Your task to perform on an android device: Go to accessibility settings Image 0: 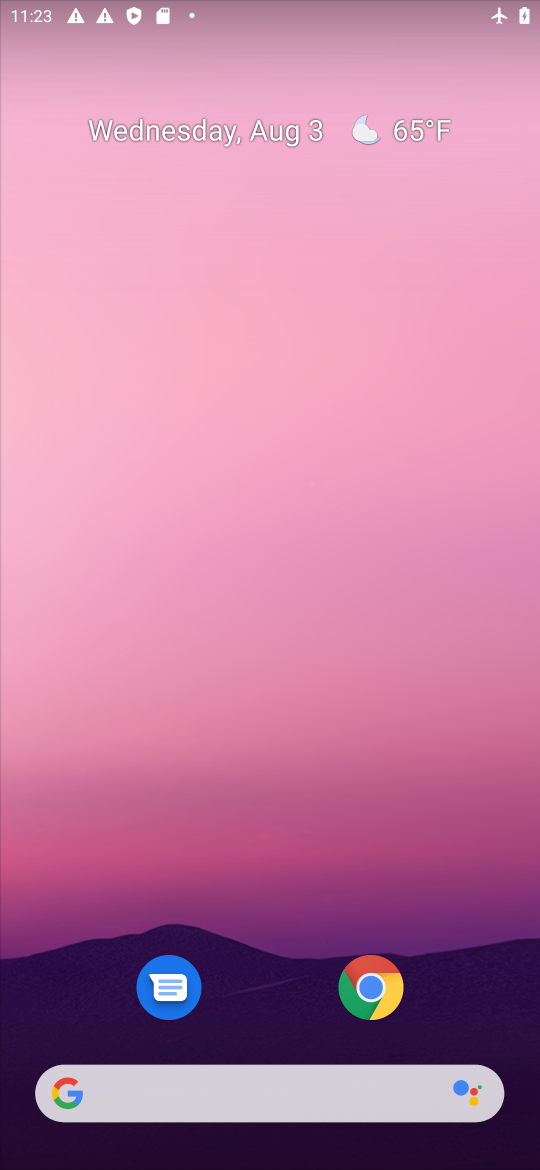
Step 0: drag from (241, 1025) to (238, 463)
Your task to perform on an android device: Go to accessibility settings Image 1: 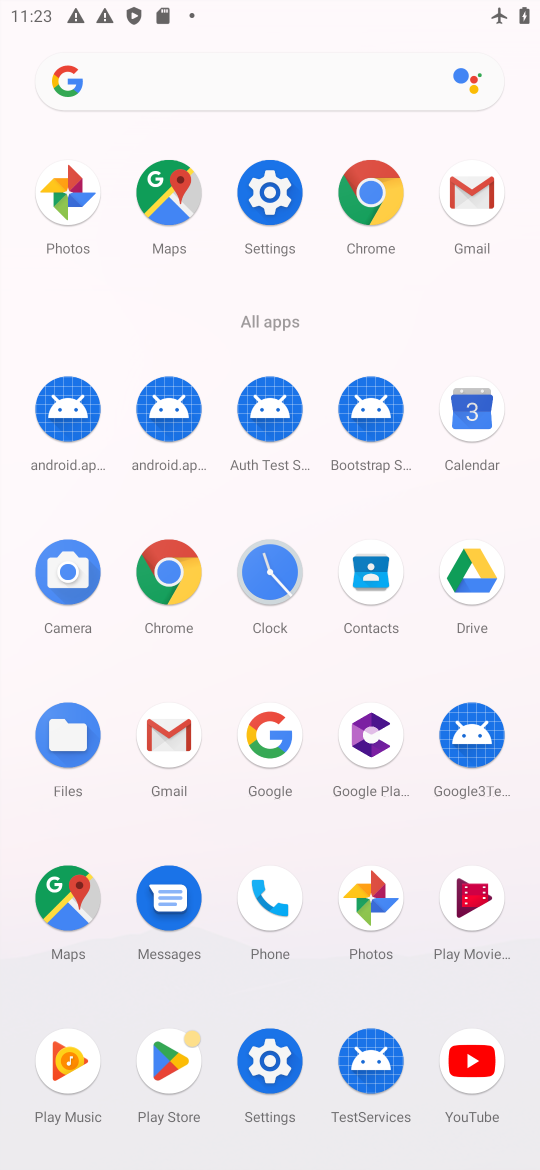
Step 1: click (277, 196)
Your task to perform on an android device: Go to accessibility settings Image 2: 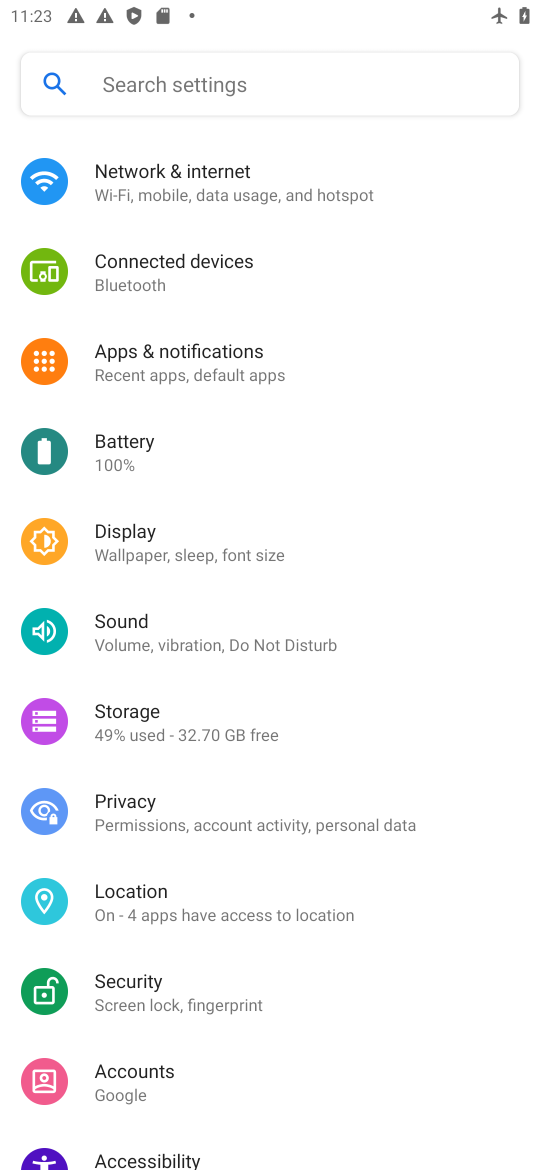
Step 2: click (149, 1159)
Your task to perform on an android device: Go to accessibility settings Image 3: 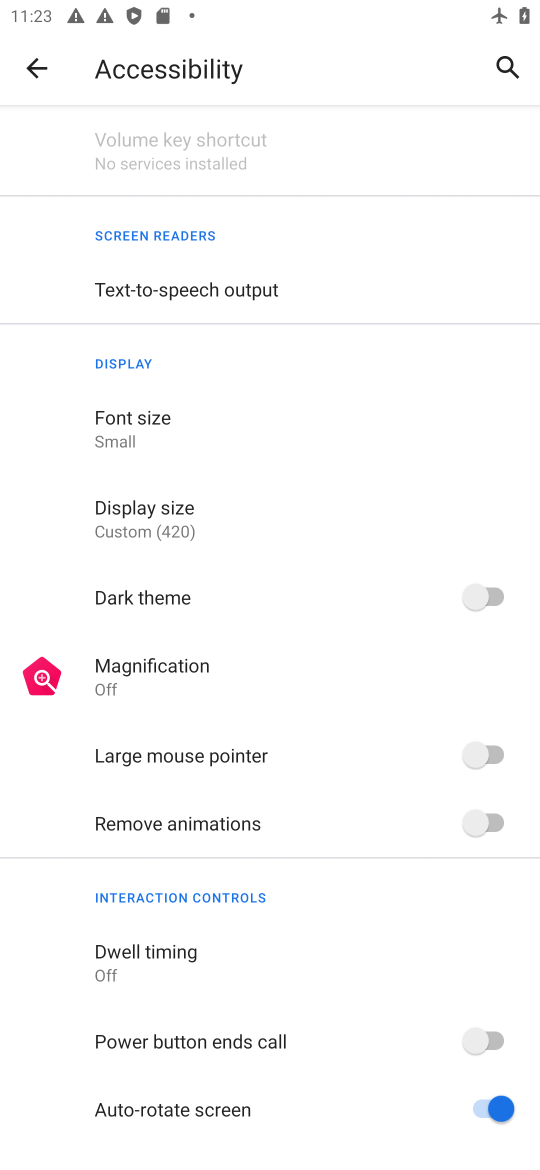
Step 3: task complete